Your task to perform on an android device: What's the weather going to be tomorrow? Image 0: 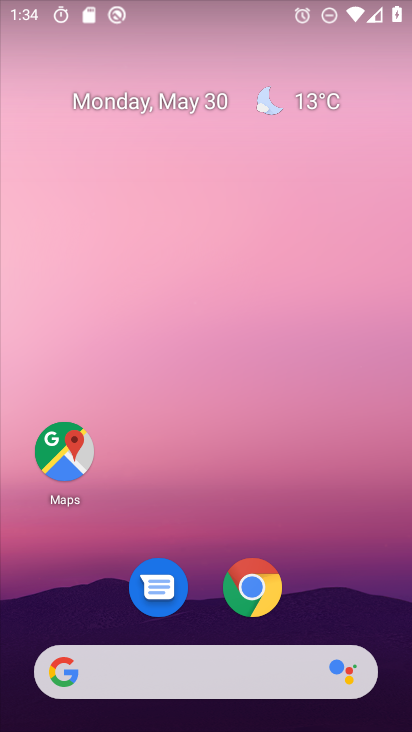
Step 0: click (360, 591)
Your task to perform on an android device: What's the weather going to be tomorrow? Image 1: 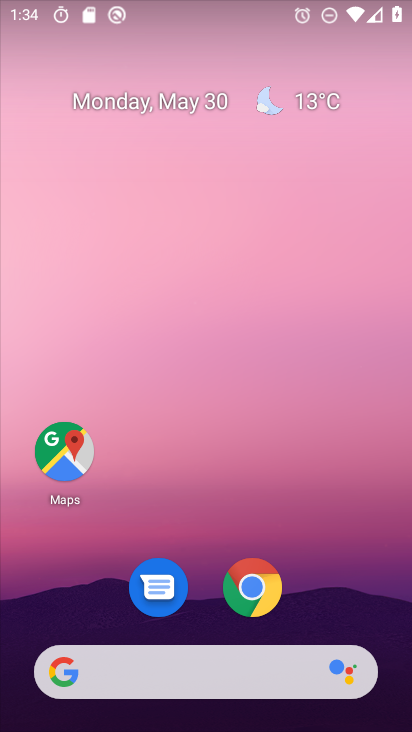
Step 1: click (315, 108)
Your task to perform on an android device: What's the weather going to be tomorrow? Image 2: 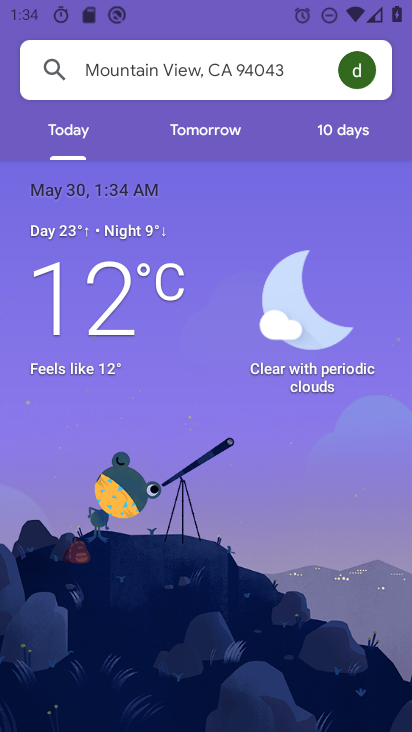
Step 2: click (213, 124)
Your task to perform on an android device: What's the weather going to be tomorrow? Image 3: 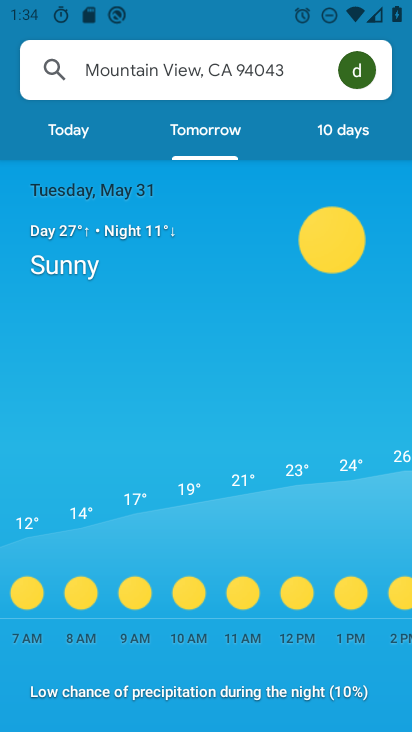
Step 3: task complete